Your task to perform on an android device: install app "Indeed Job Search" Image 0: 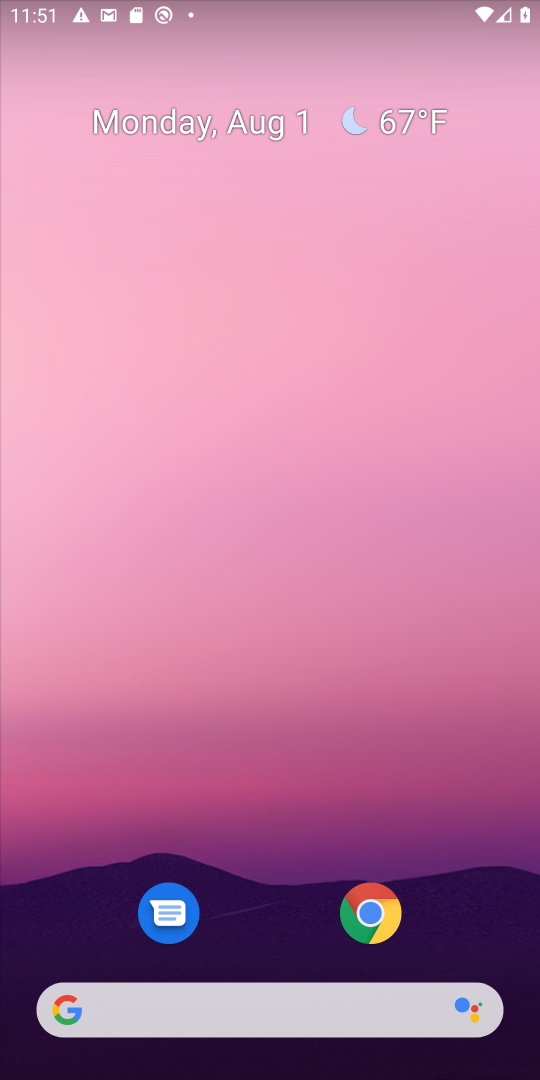
Step 0: drag from (494, 925) to (419, 238)
Your task to perform on an android device: install app "Indeed Job Search" Image 1: 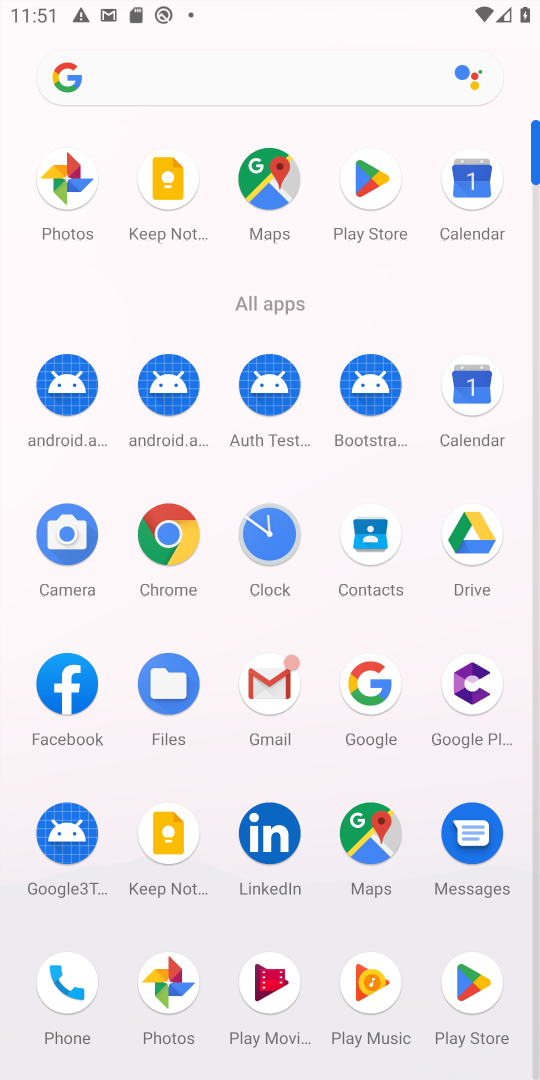
Step 1: click (371, 182)
Your task to perform on an android device: install app "Indeed Job Search" Image 2: 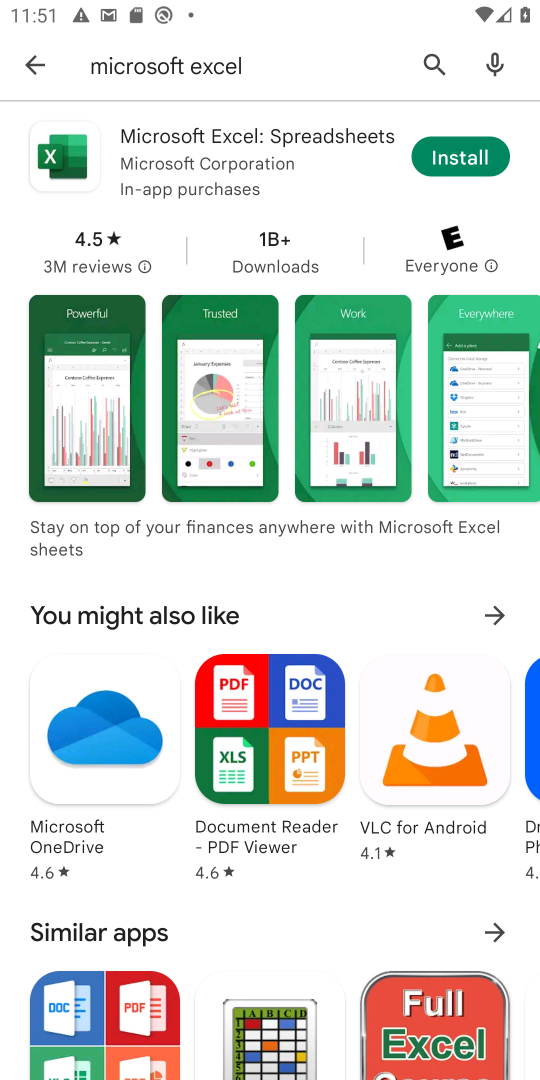
Step 2: click (426, 57)
Your task to perform on an android device: install app "Indeed Job Search" Image 3: 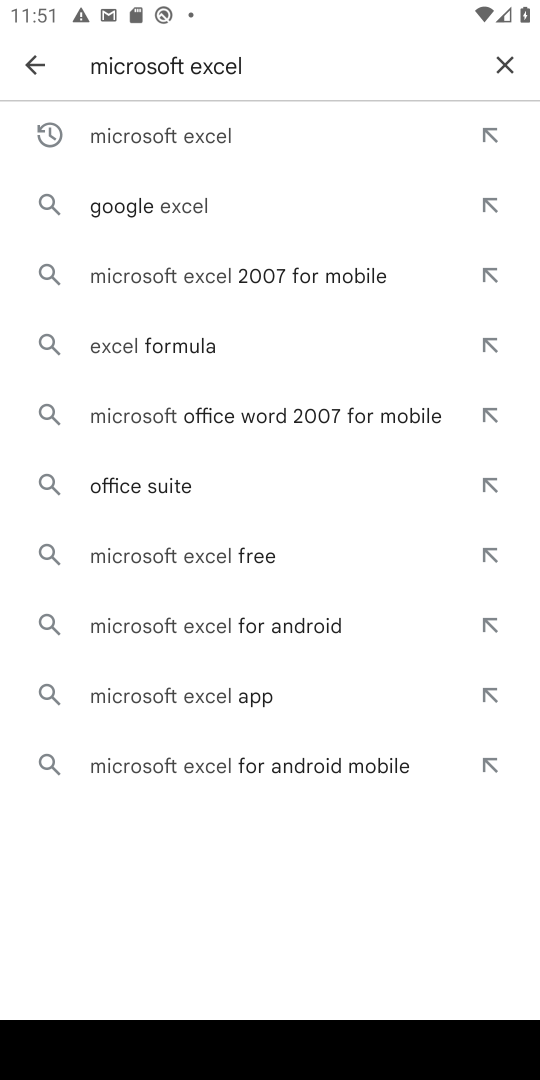
Step 3: click (501, 58)
Your task to perform on an android device: install app "Indeed Job Search" Image 4: 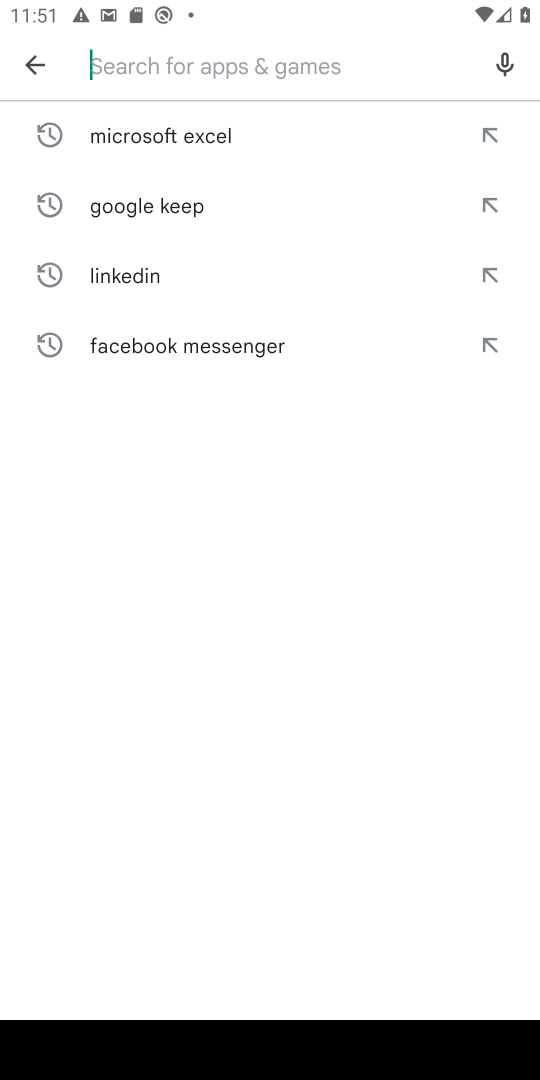
Step 4: type "Indeed Job Search"
Your task to perform on an android device: install app "Indeed Job Search" Image 5: 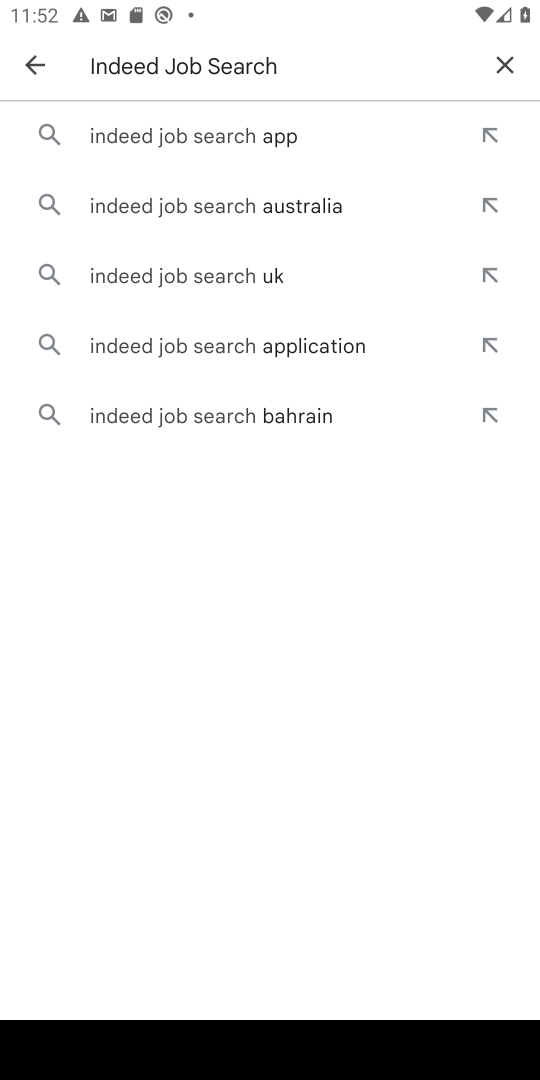
Step 5: click (250, 133)
Your task to perform on an android device: install app "Indeed Job Search" Image 6: 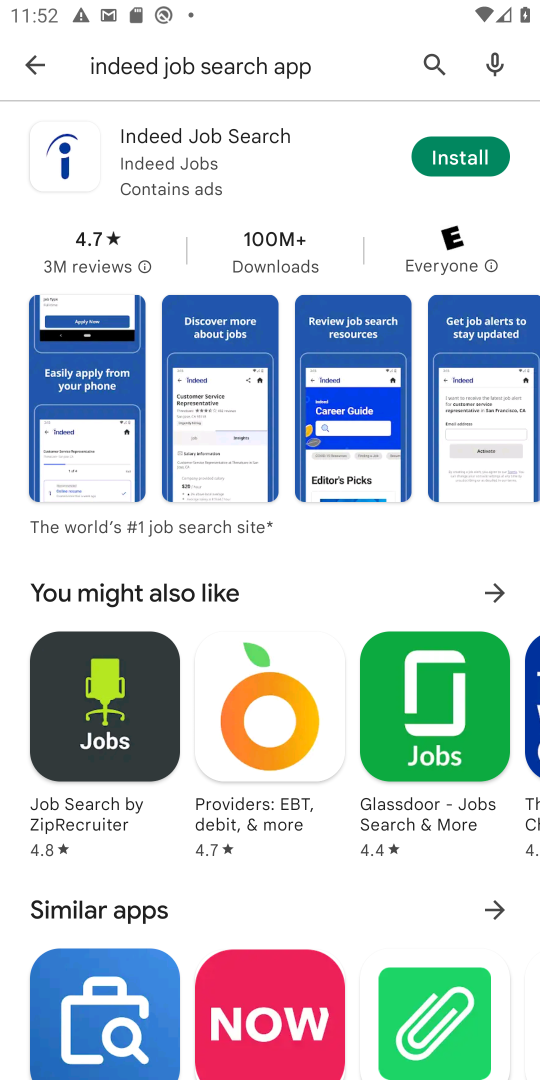
Step 6: click (452, 136)
Your task to perform on an android device: install app "Indeed Job Search" Image 7: 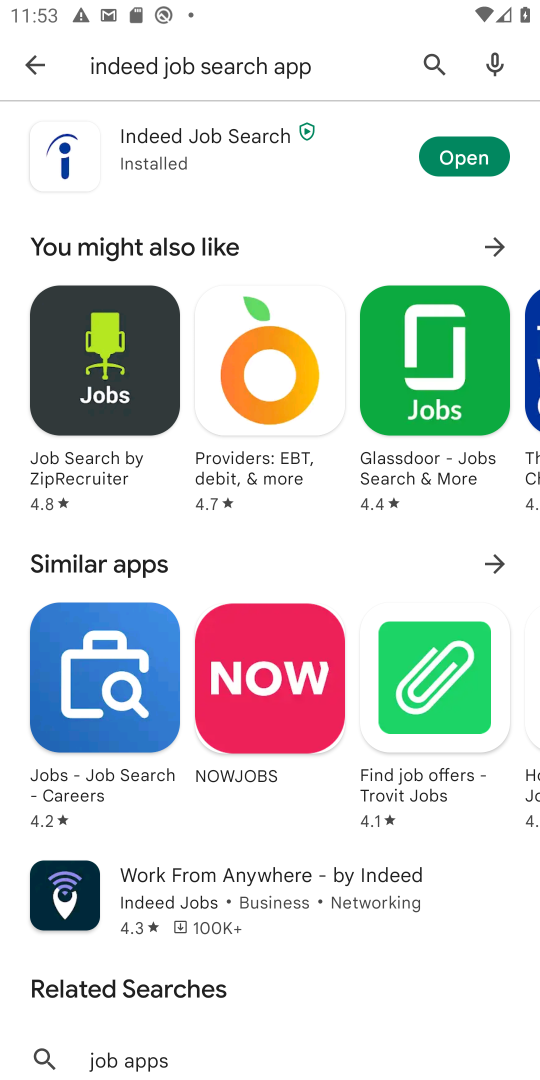
Step 7: task complete